Your task to perform on an android device: Open calendar and show me the second week of next month Image 0: 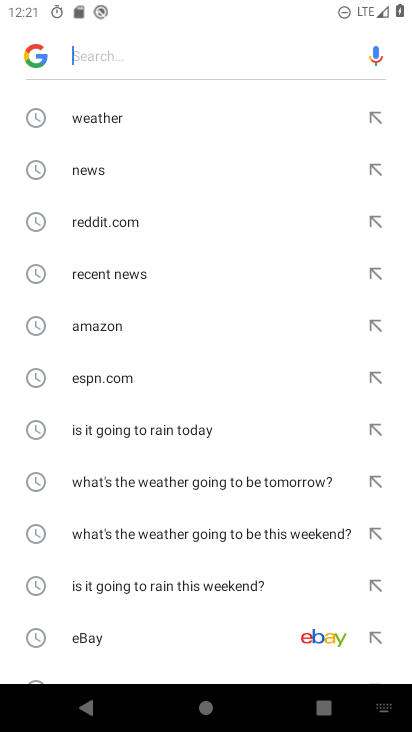
Step 0: press home button
Your task to perform on an android device: Open calendar and show me the second week of next month Image 1: 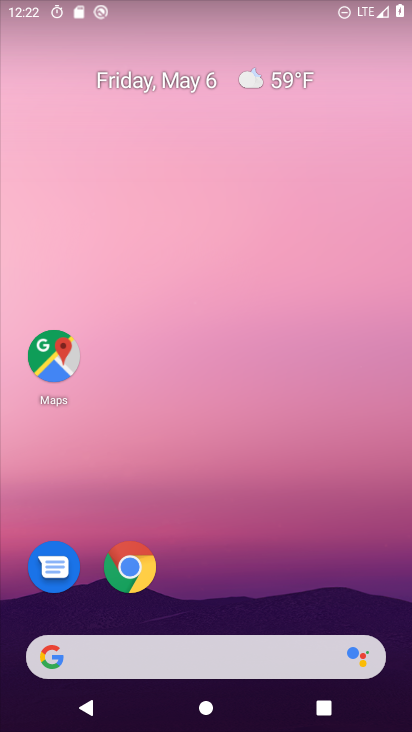
Step 1: drag from (376, 578) to (408, 31)
Your task to perform on an android device: Open calendar and show me the second week of next month Image 2: 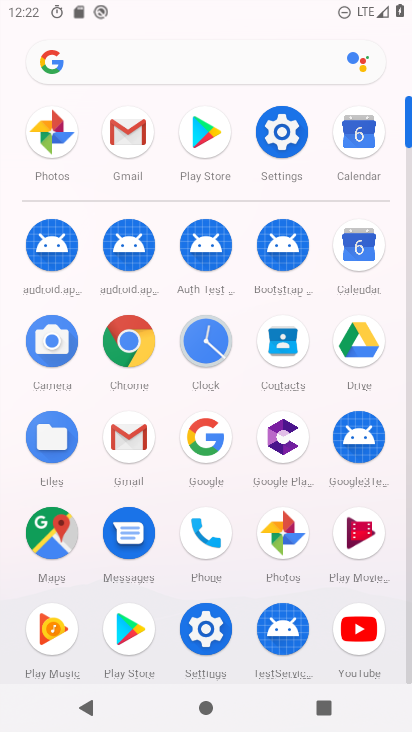
Step 2: click (357, 138)
Your task to perform on an android device: Open calendar and show me the second week of next month Image 3: 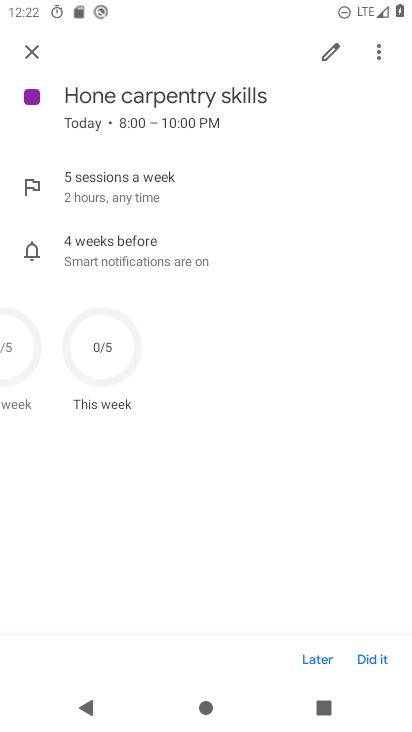
Step 3: click (30, 58)
Your task to perform on an android device: Open calendar and show me the second week of next month Image 4: 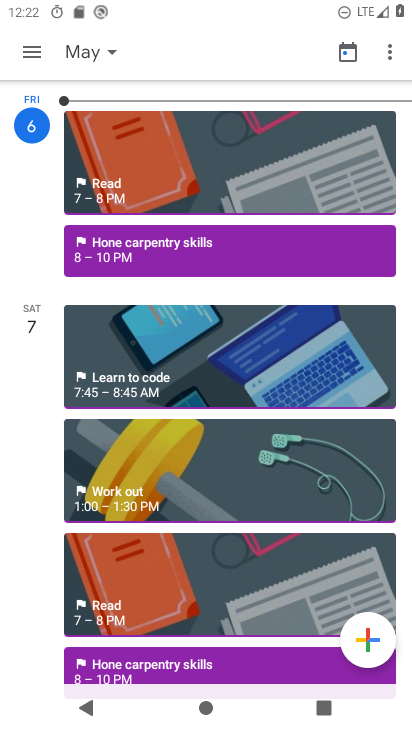
Step 4: click (113, 51)
Your task to perform on an android device: Open calendar and show me the second week of next month Image 5: 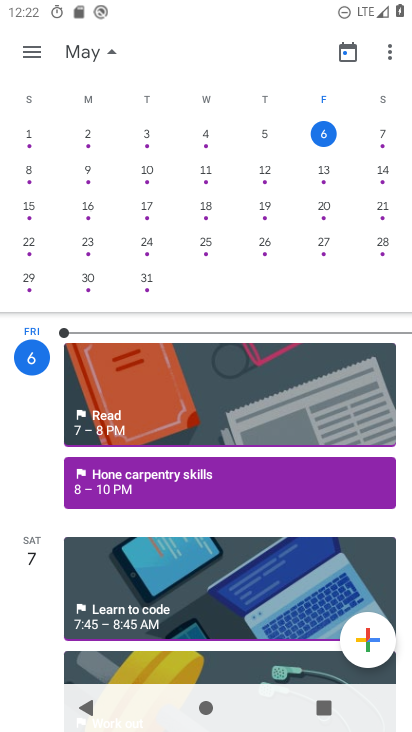
Step 5: drag from (281, 197) to (3, 183)
Your task to perform on an android device: Open calendar and show me the second week of next month Image 6: 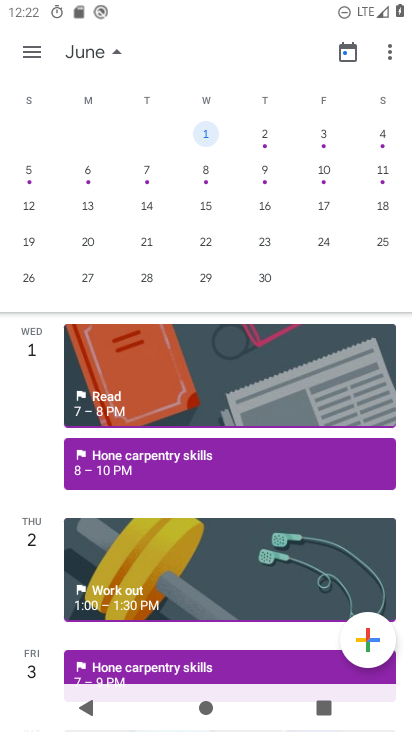
Step 6: click (33, 52)
Your task to perform on an android device: Open calendar and show me the second week of next month Image 7: 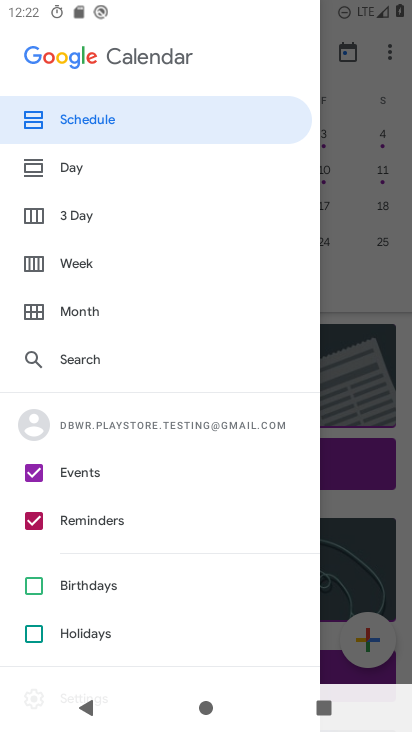
Step 7: click (80, 268)
Your task to perform on an android device: Open calendar and show me the second week of next month Image 8: 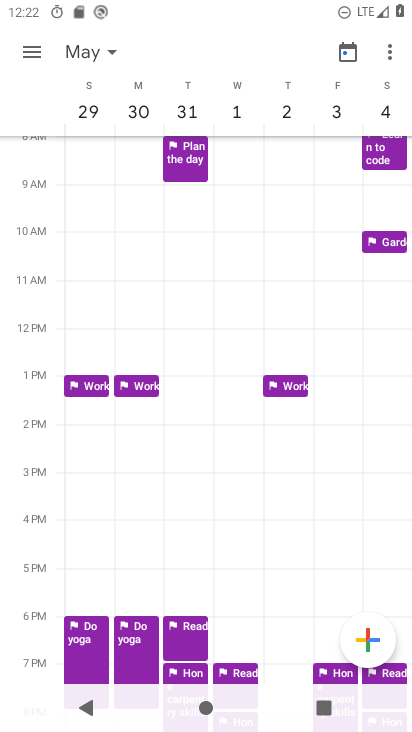
Step 8: task complete